Your task to perform on an android device: choose inbox layout in the gmail app Image 0: 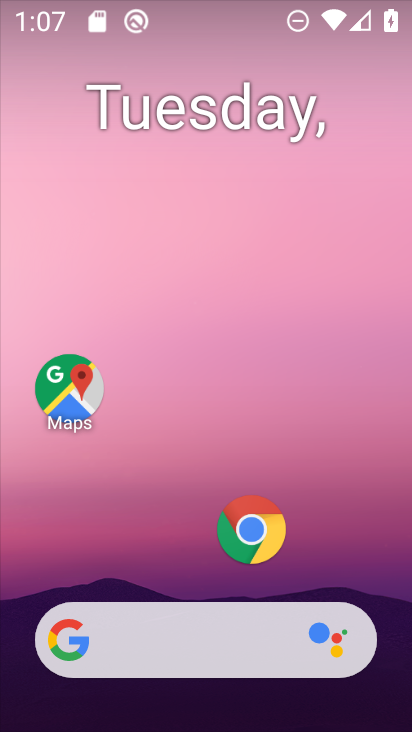
Step 0: drag from (231, 689) to (237, 307)
Your task to perform on an android device: choose inbox layout in the gmail app Image 1: 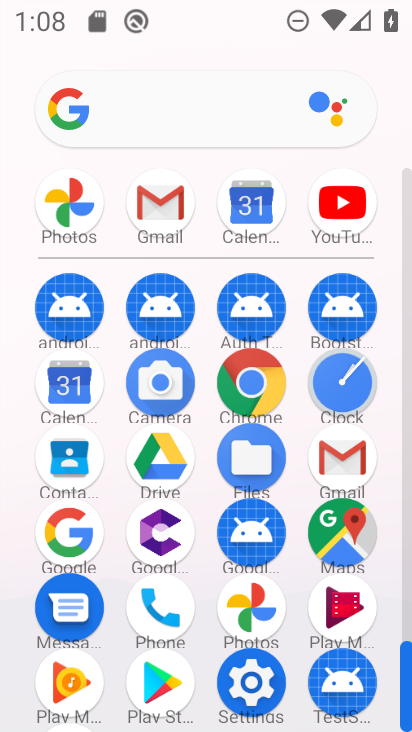
Step 1: click (171, 208)
Your task to perform on an android device: choose inbox layout in the gmail app Image 2: 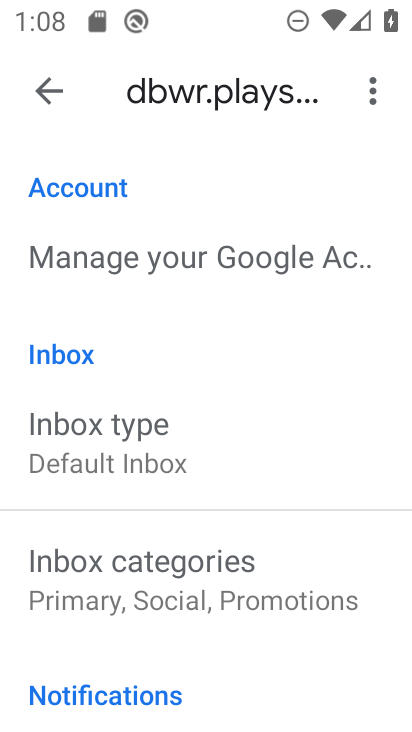
Step 2: task complete